Your task to perform on an android device: Go to Google maps Image 0: 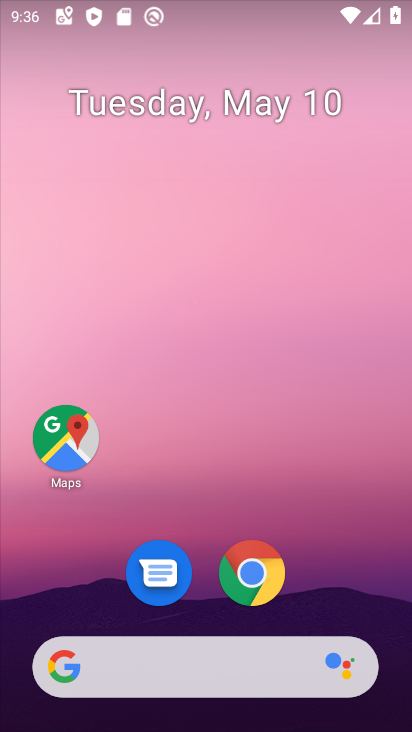
Step 0: click (64, 441)
Your task to perform on an android device: Go to Google maps Image 1: 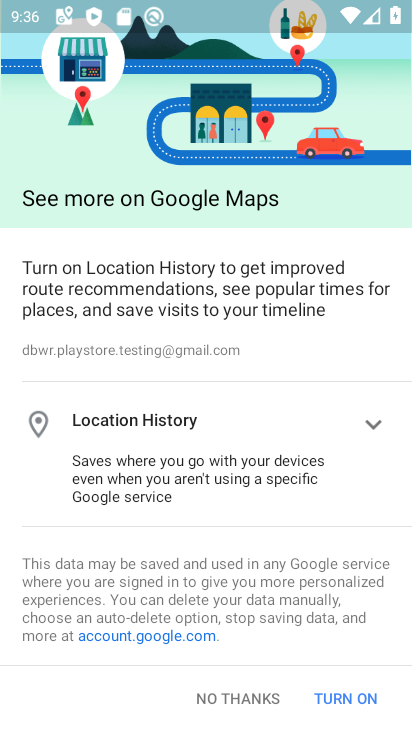
Step 1: click (334, 699)
Your task to perform on an android device: Go to Google maps Image 2: 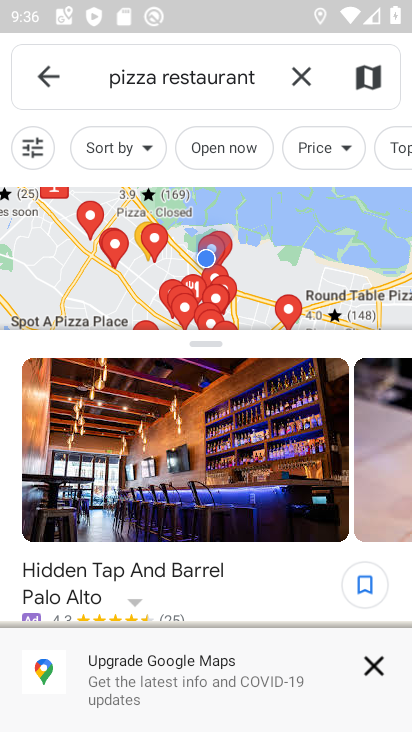
Step 2: task complete